Your task to perform on an android device: Find coffee shops on Maps Image 0: 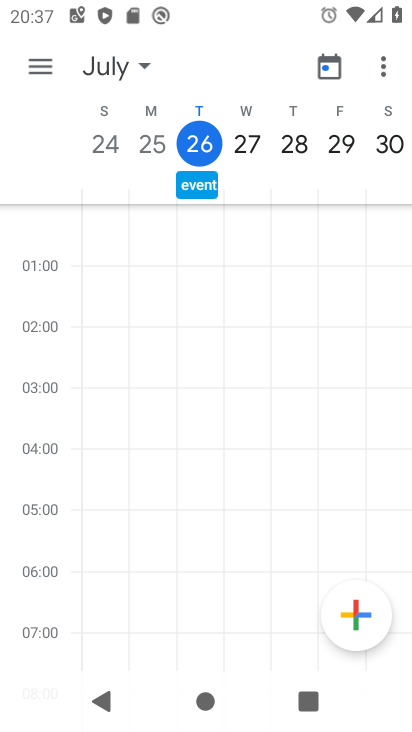
Step 0: press home button
Your task to perform on an android device: Find coffee shops on Maps Image 1: 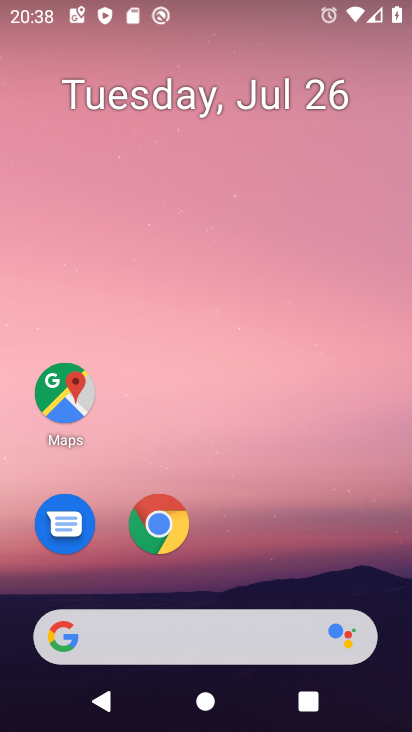
Step 1: click (65, 393)
Your task to perform on an android device: Find coffee shops on Maps Image 2: 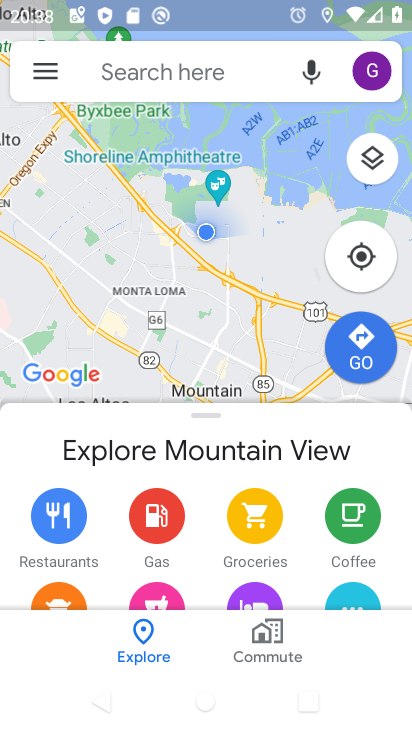
Step 2: click (212, 67)
Your task to perform on an android device: Find coffee shops on Maps Image 3: 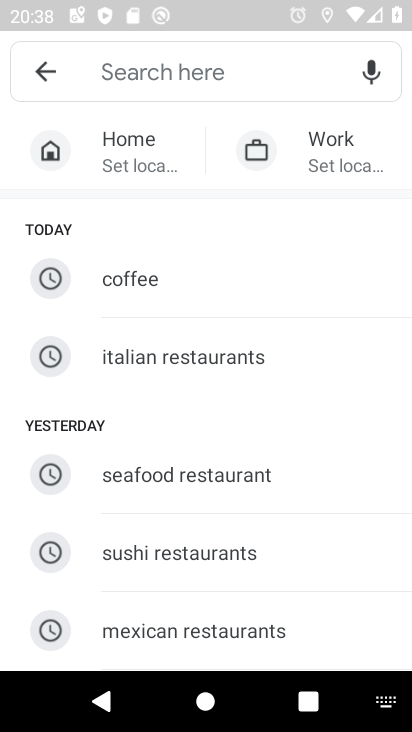
Step 3: click (135, 267)
Your task to perform on an android device: Find coffee shops on Maps Image 4: 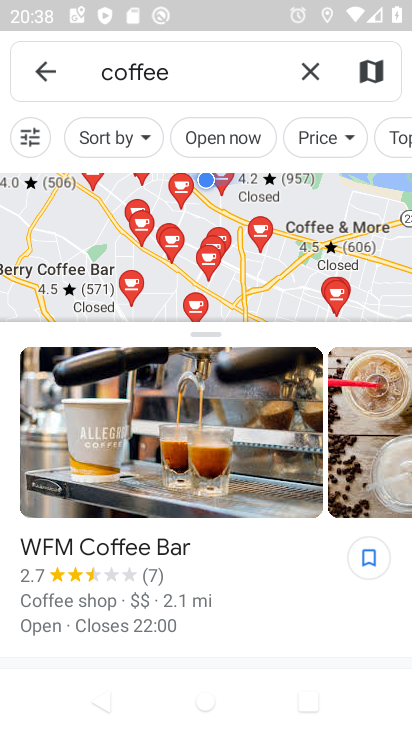
Step 4: task complete